Your task to perform on an android device: Go to battery settings Image 0: 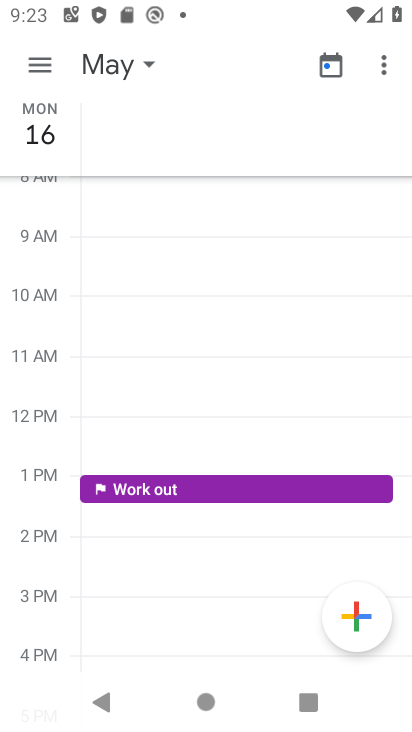
Step 0: press home button
Your task to perform on an android device: Go to battery settings Image 1: 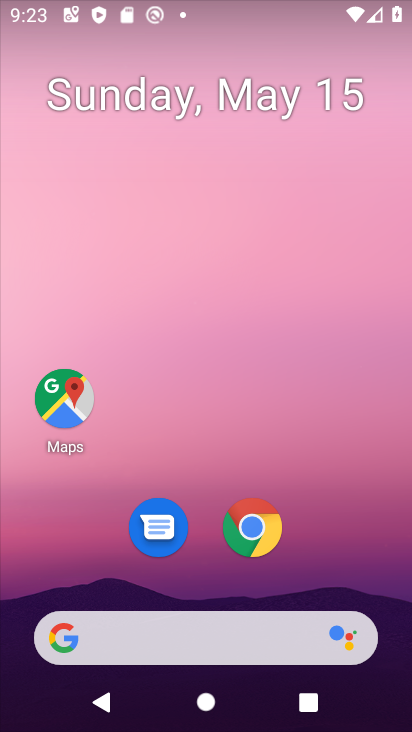
Step 1: drag from (346, 546) to (298, 287)
Your task to perform on an android device: Go to battery settings Image 2: 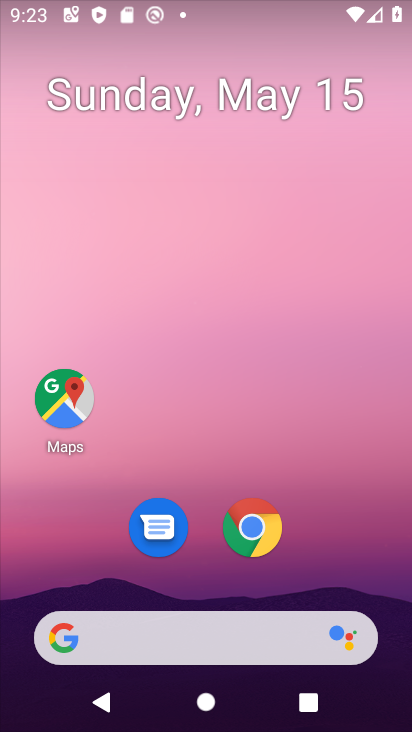
Step 2: drag from (352, 562) to (217, 30)
Your task to perform on an android device: Go to battery settings Image 3: 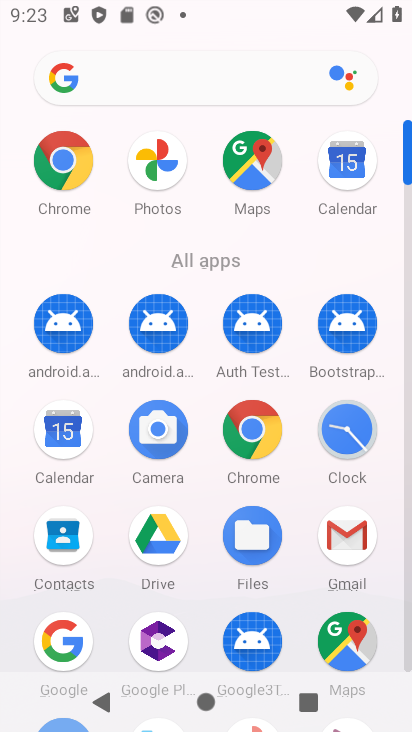
Step 3: click (404, 641)
Your task to perform on an android device: Go to battery settings Image 4: 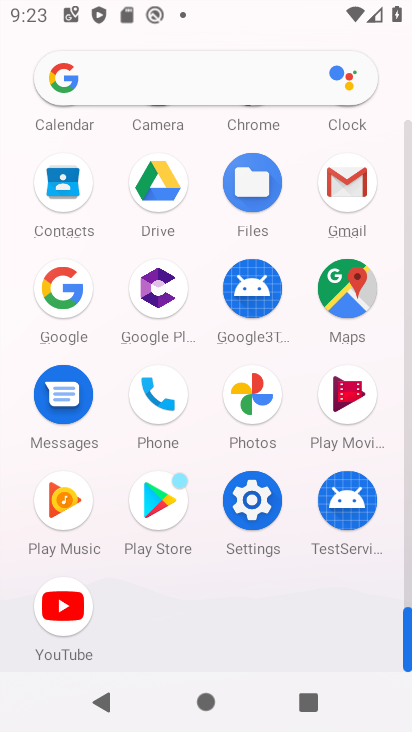
Step 4: click (256, 538)
Your task to perform on an android device: Go to battery settings Image 5: 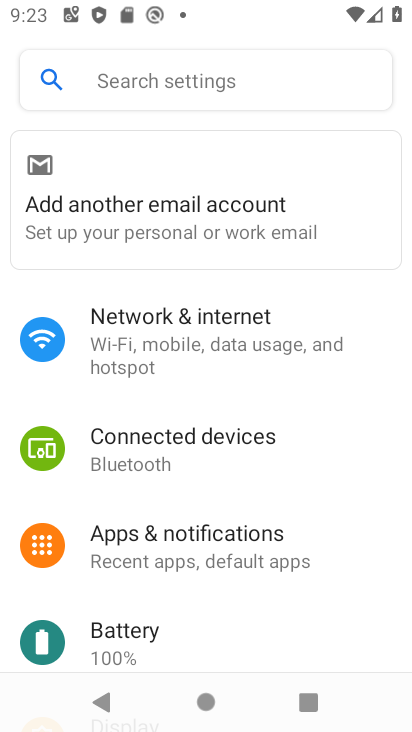
Step 5: click (252, 637)
Your task to perform on an android device: Go to battery settings Image 6: 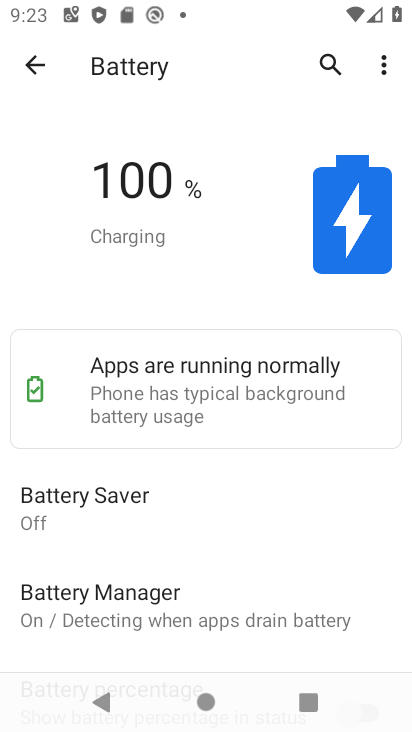
Step 6: task complete